Your task to perform on an android device: Open internet settings Image 0: 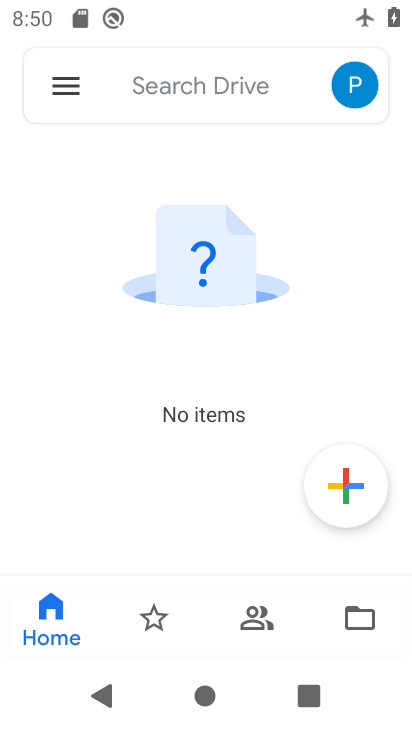
Step 0: press home button
Your task to perform on an android device: Open internet settings Image 1: 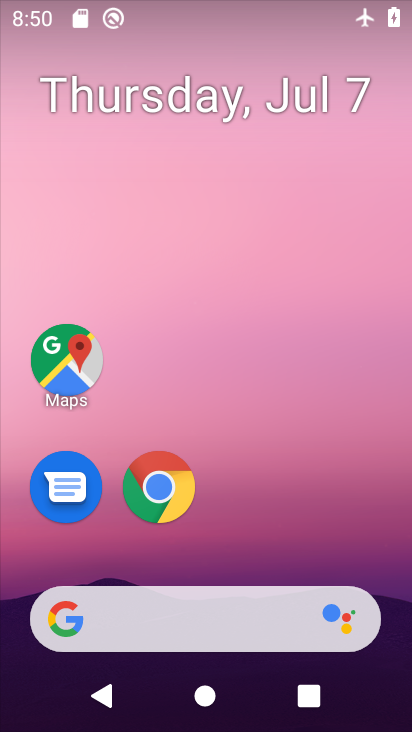
Step 1: drag from (381, 535) to (407, 98)
Your task to perform on an android device: Open internet settings Image 2: 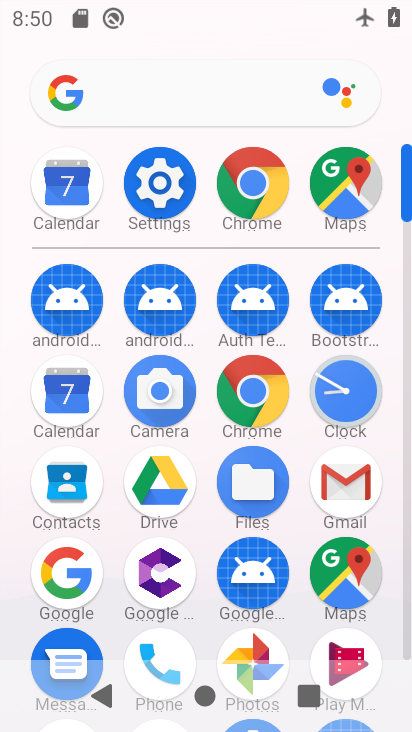
Step 2: click (166, 194)
Your task to perform on an android device: Open internet settings Image 3: 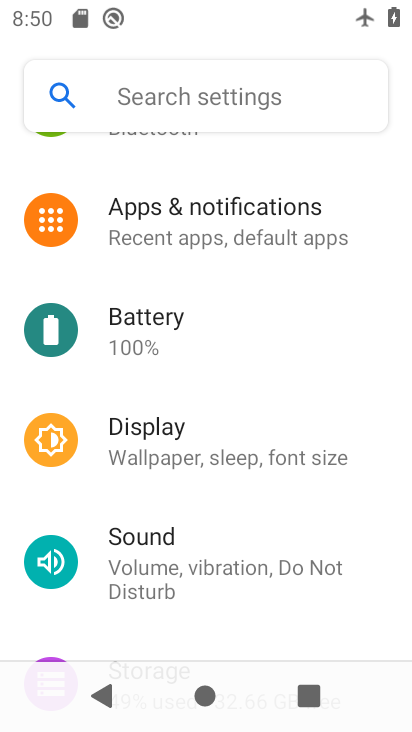
Step 3: drag from (361, 509) to (379, 278)
Your task to perform on an android device: Open internet settings Image 4: 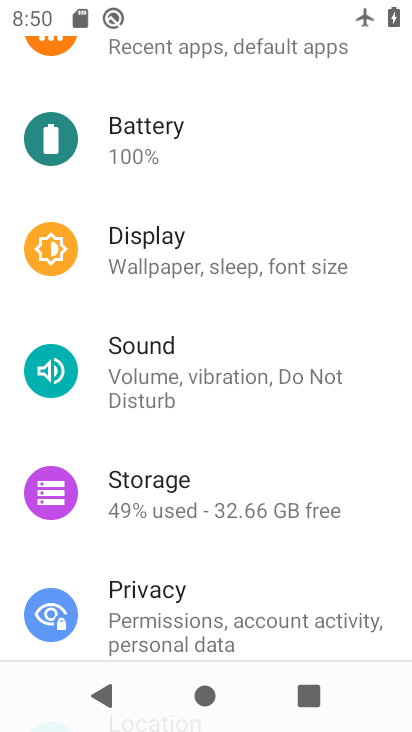
Step 4: drag from (371, 482) to (373, 312)
Your task to perform on an android device: Open internet settings Image 5: 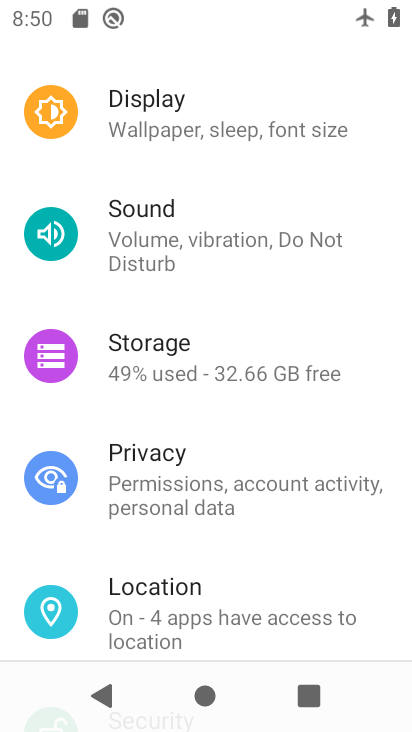
Step 5: drag from (371, 527) to (375, 303)
Your task to perform on an android device: Open internet settings Image 6: 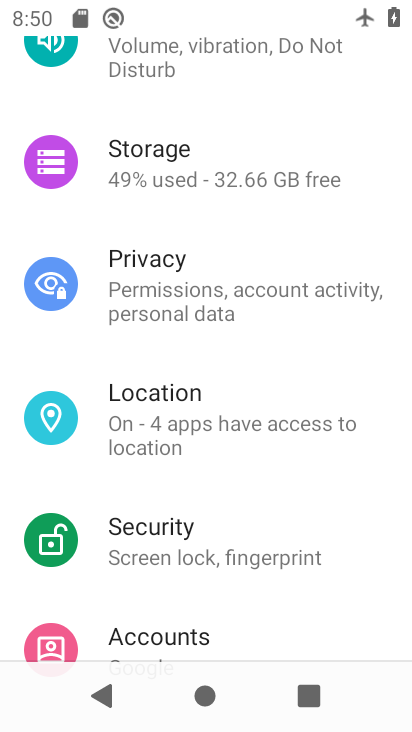
Step 6: drag from (364, 523) to (367, 300)
Your task to perform on an android device: Open internet settings Image 7: 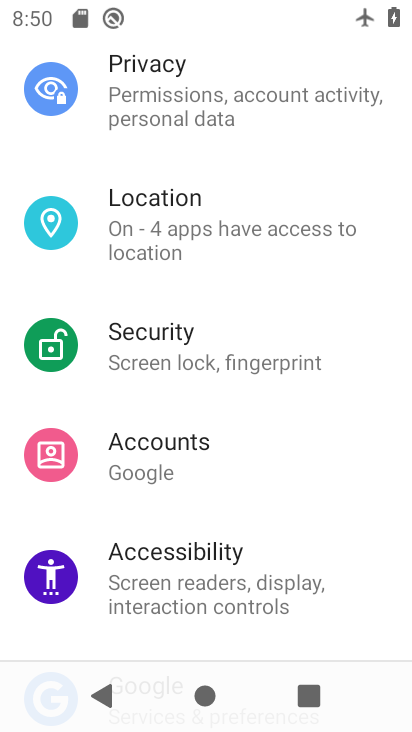
Step 7: drag from (354, 490) to (357, 297)
Your task to perform on an android device: Open internet settings Image 8: 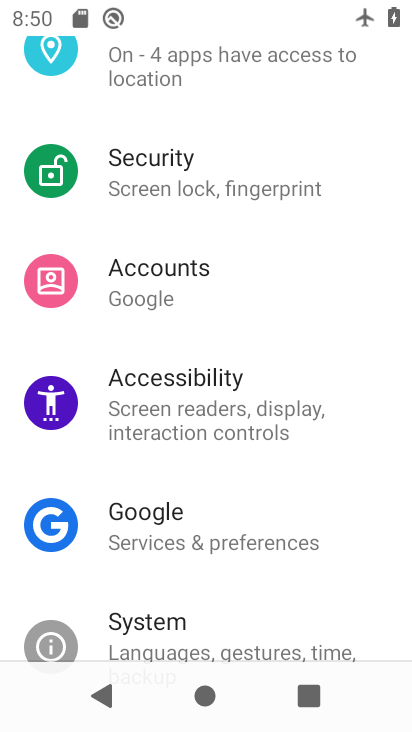
Step 8: drag from (351, 538) to (354, 372)
Your task to perform on an android device: Open internet settings Image 9: 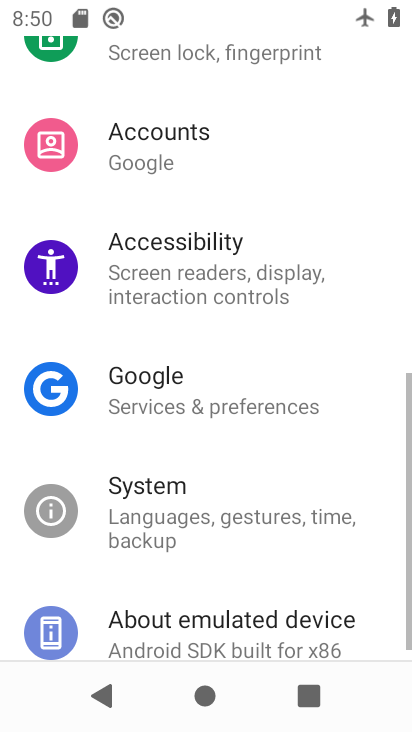
Step 9: drag from (363, 300) to (357, 428)
Your task to perform on an android device: Open internet settings Image 10: 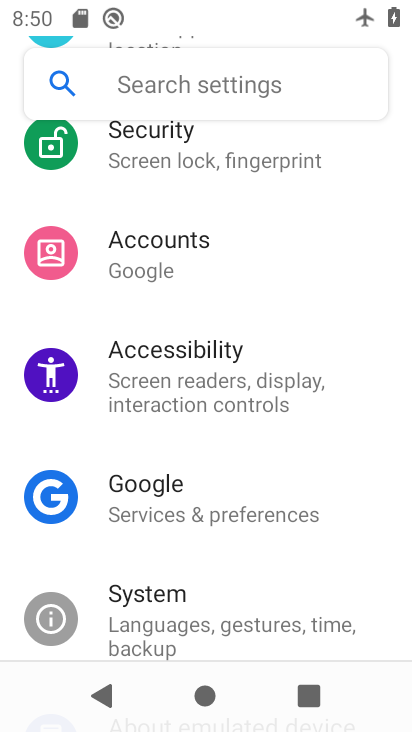
Step 10: drag from (358, 272) to (360, 414)
Your task to perform on an android device: Open internet settings Image 11: 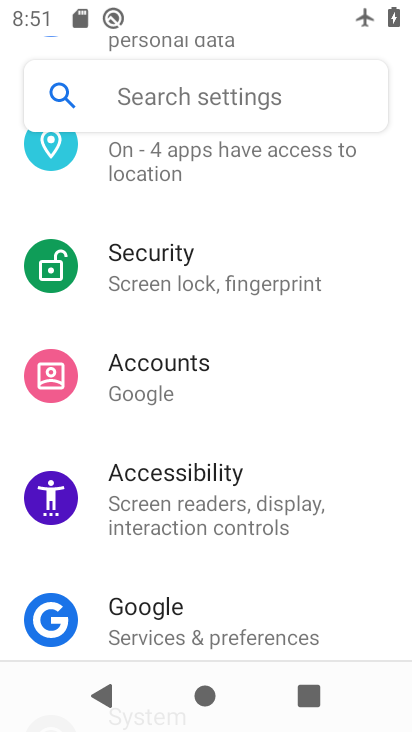
Step 11: drag from (363, 221) to (359, 485)
Your task to perform on an android device: Open internet settings Image 12: 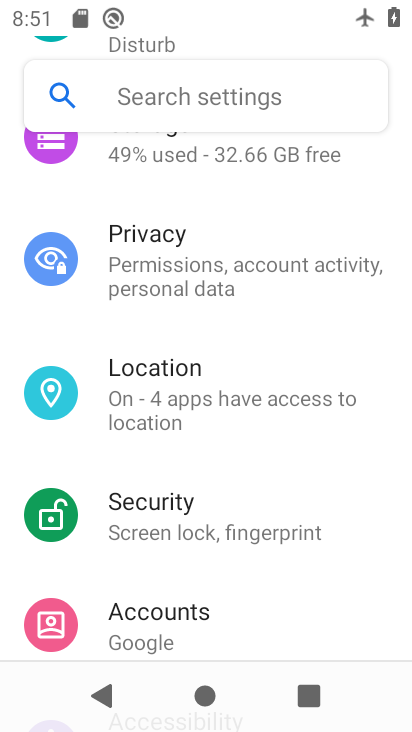
Step 12: drag from (359, 275) to (359, 469)
Your task to perform on an android device: Open internet settings Image 13: 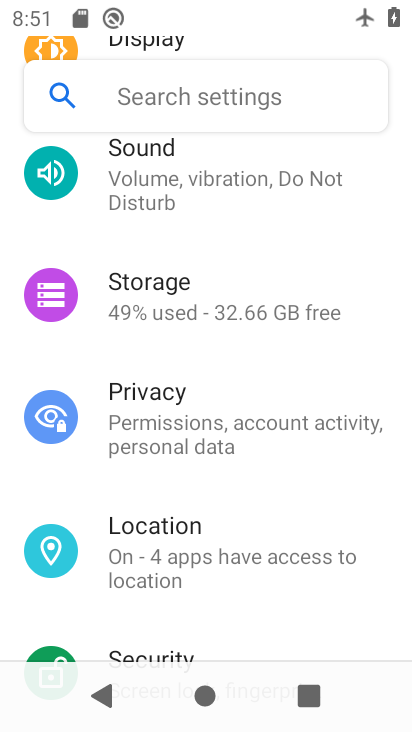
Step 13: drag from (362, 296) to (364, 453)
Your task to perform on an android device: Open internet settings Image 14: 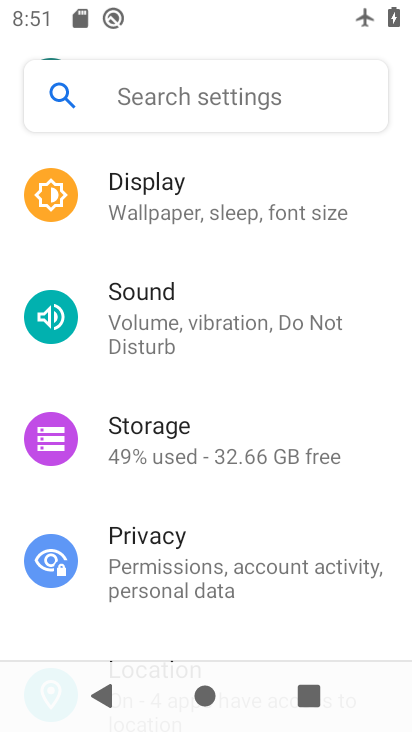
Step 14: drag from (360, 294) to (360, 444)
Your task to perform on an android device: Open internet settings Image 15: 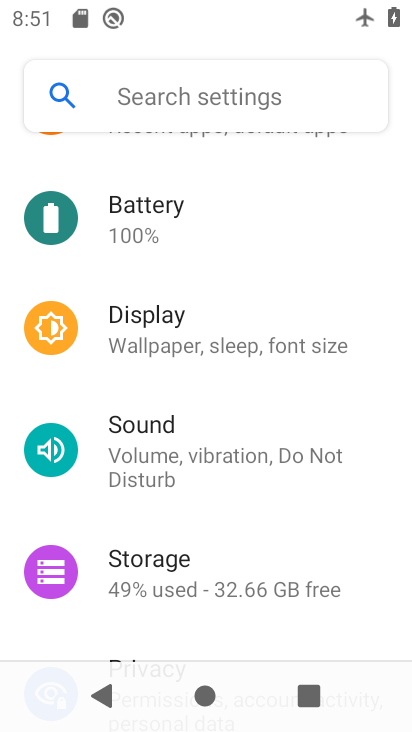
Step 15: drag from (364, 269) to (363, 387)
Your task to perform on an android device: Open internet settings Image 16: 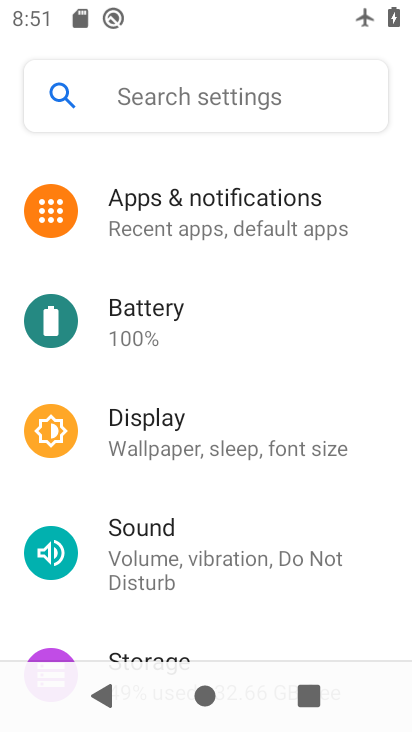
Step 16: drag from (368, 320) to (379, 459)
Your task to perform on an android device: Open internet settings Image 17: 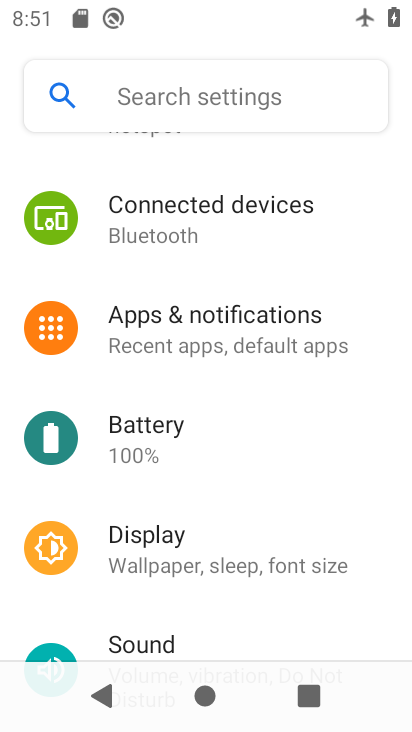
Step 17: drag from (379, 334) to (374, 495)
Your task to perform on an android device: Open internet settings Image 18: 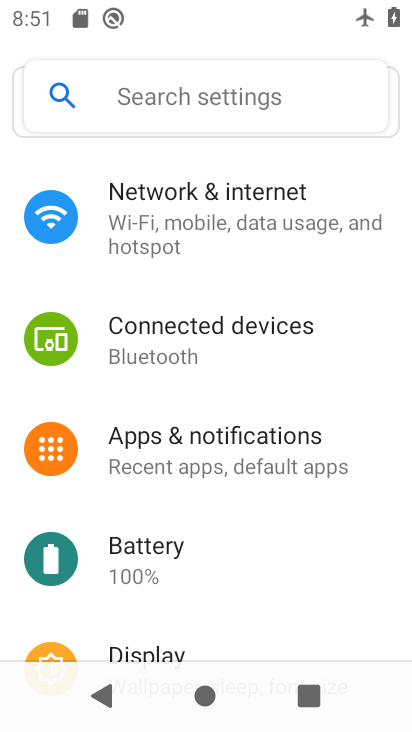
Step 18: drag from (365, 349) to (373, 509)
Your task to perform on an android device: Open internet settings Image 19: 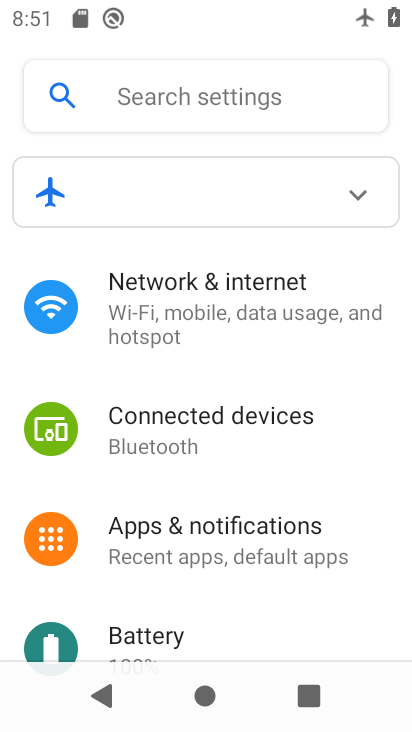
Step 19: click (334, 309)
Your task to perform on an android device: Open internet settings Image 20: 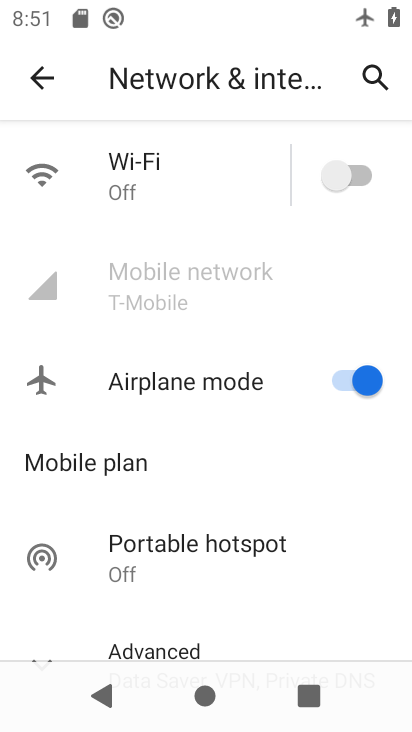
Step 20: task complete